Your task to perform on an android device: Go to Amazon Image 0: 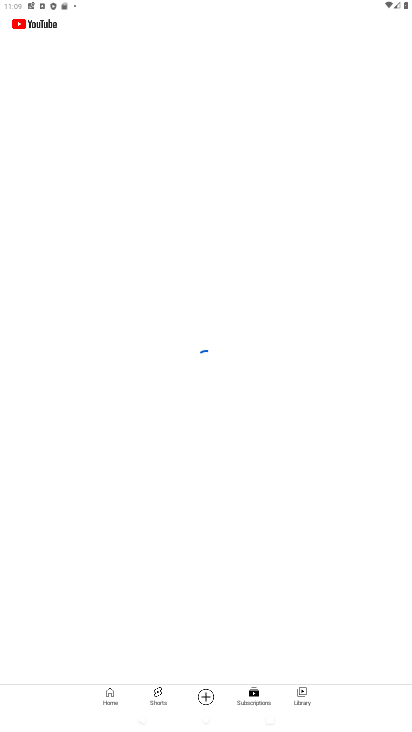
Step 0: click (175, 658)
Your task to perform on an android device: Go to Amazon Image 1: 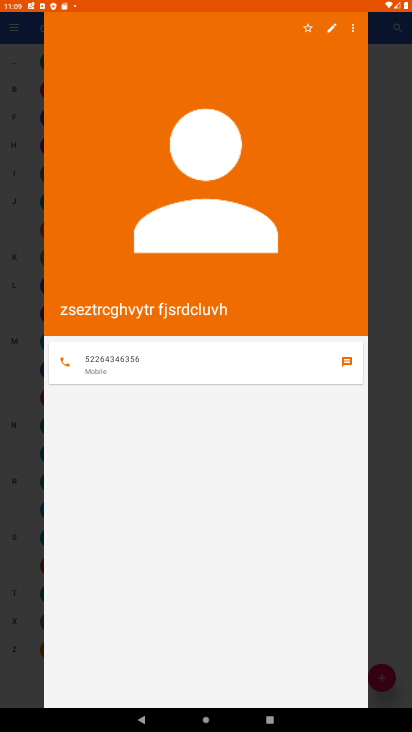
Step 1: press home button
Your task to perform on an android device: Go to Amazon Image 2: 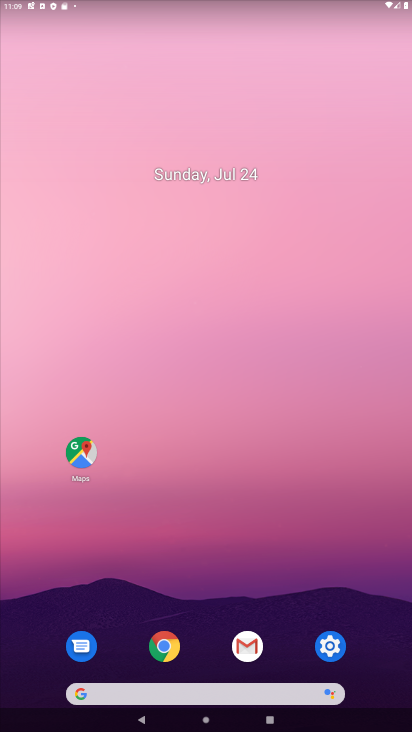
Step 2: click (163, 642)
Your task to perform on an android device: Go to Amazon Image 3: 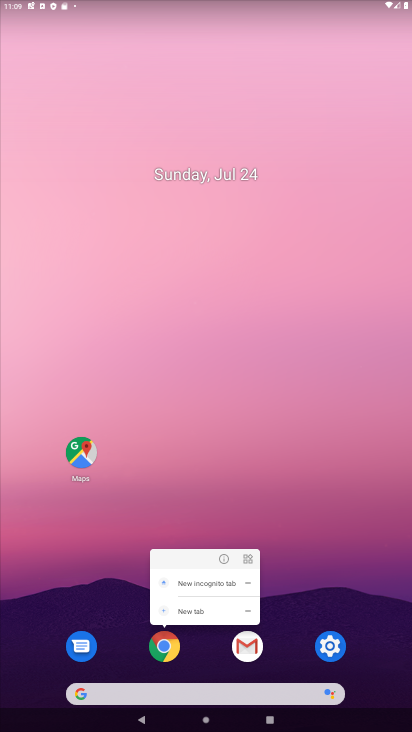
Step 3: click (166, 644)
Your task to perform on an android device: Go to Amazon Image 4: 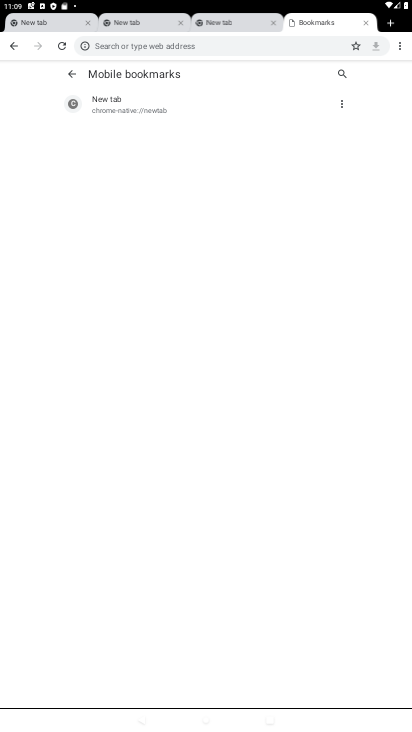
Step 4: click (390, 23)
Your task to perform on an android device: Go to Amazon Image 5: 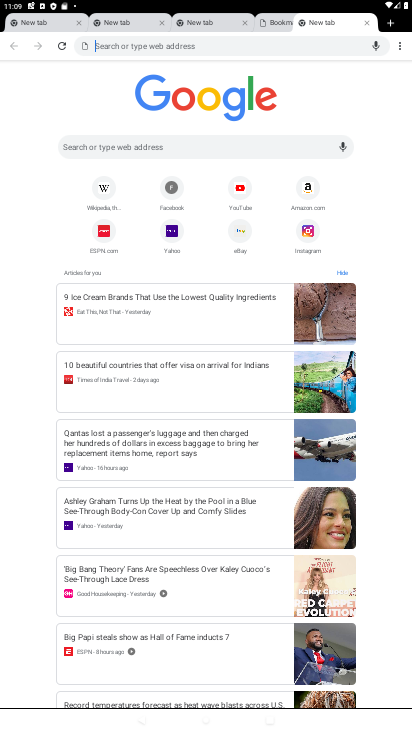
Step 5: click (308, 191)
Your task to perform on an android device: Go to Amazon Image 6: 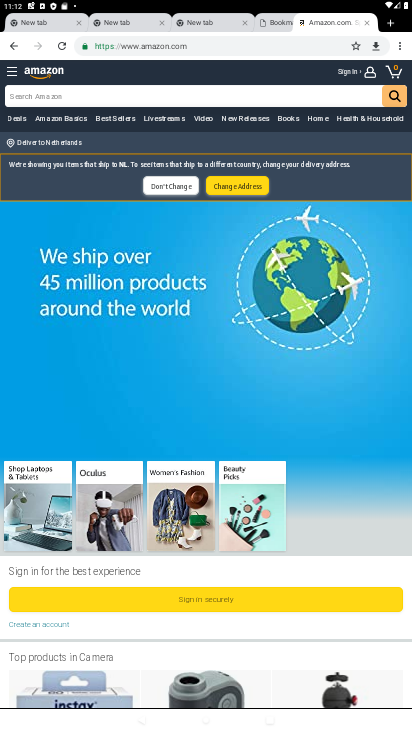
Step 6: task complete